Your task to perform on an android device: install app "Life360: Find Family & Friends" Image 0: 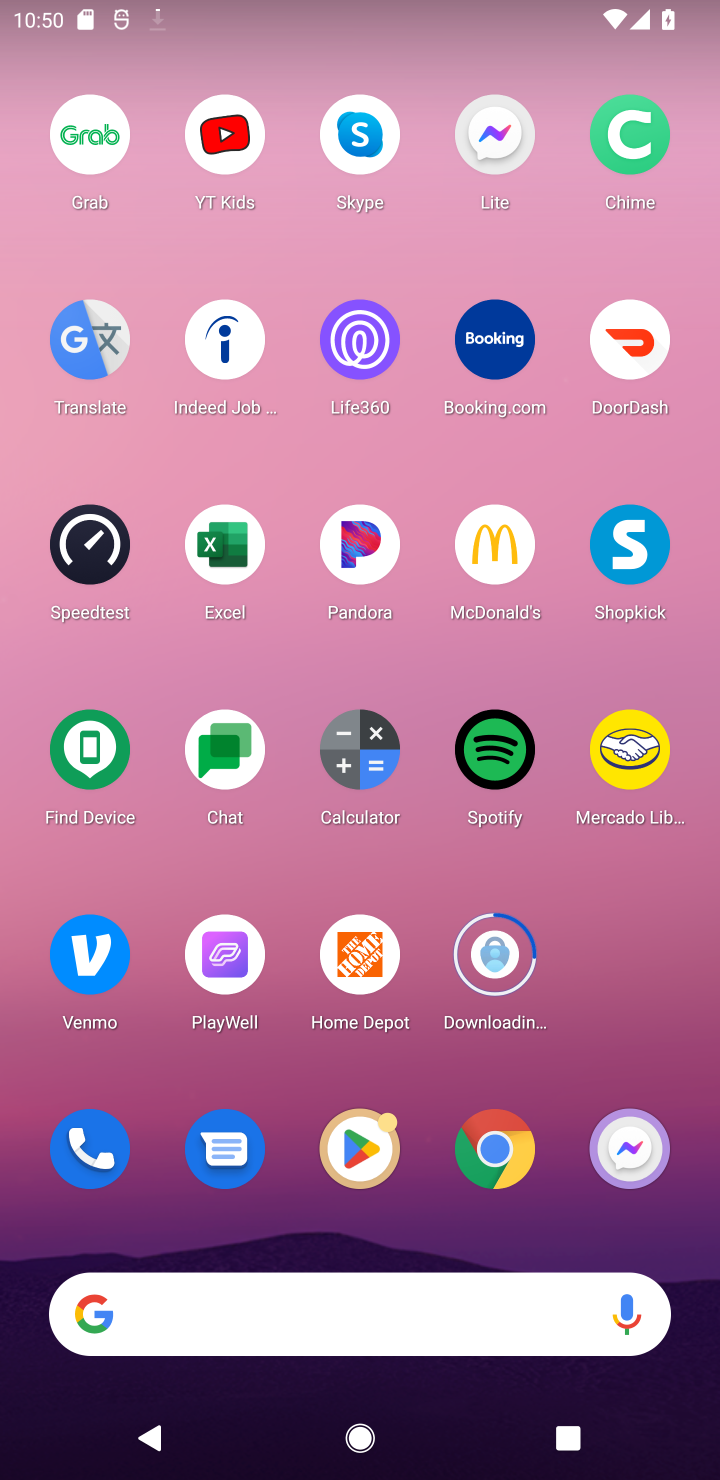
Step 0: click (344, 1138)
Your task to perform on an android device: install app "Life360: Find Family & Friends" Image 1: 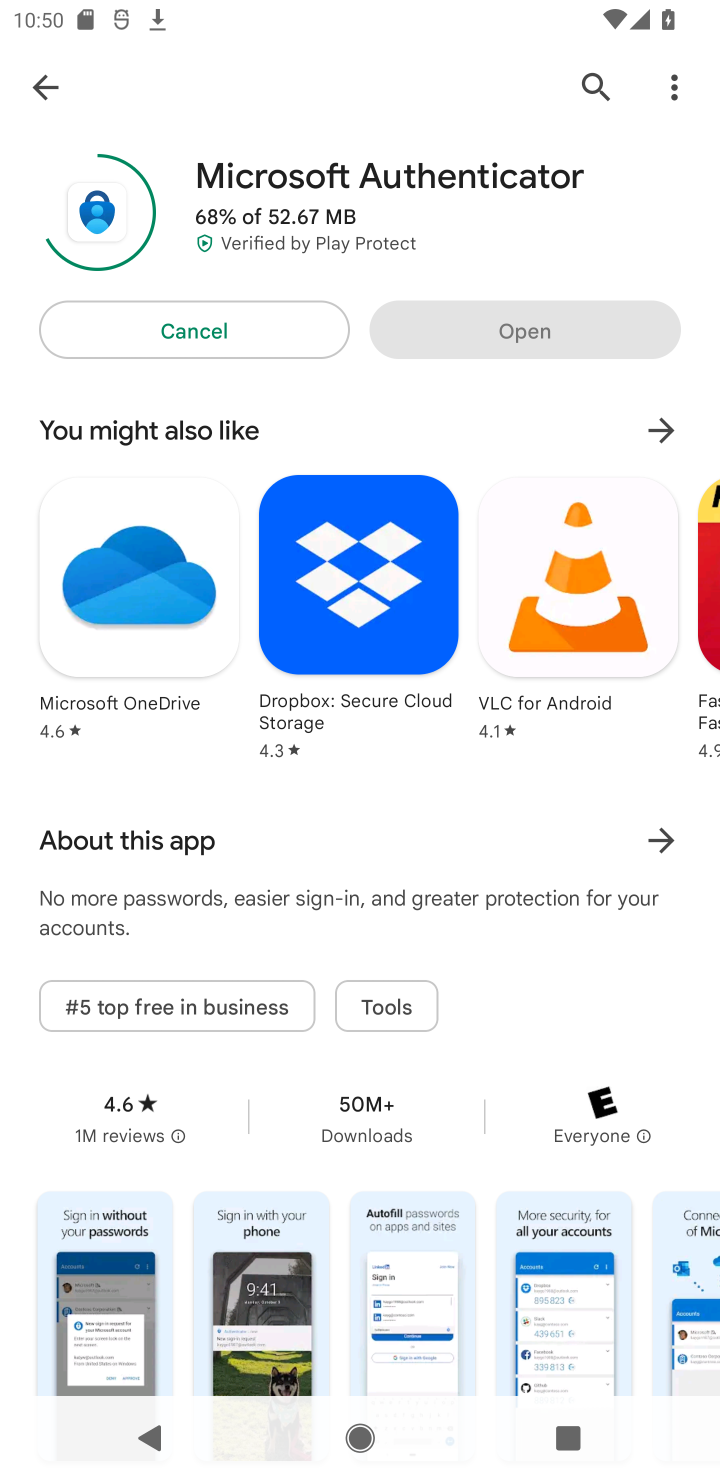
Step 1: click (617, 105)
Your task to perform on an android device: install app "Life360: Find Family & Friends" Image 2: 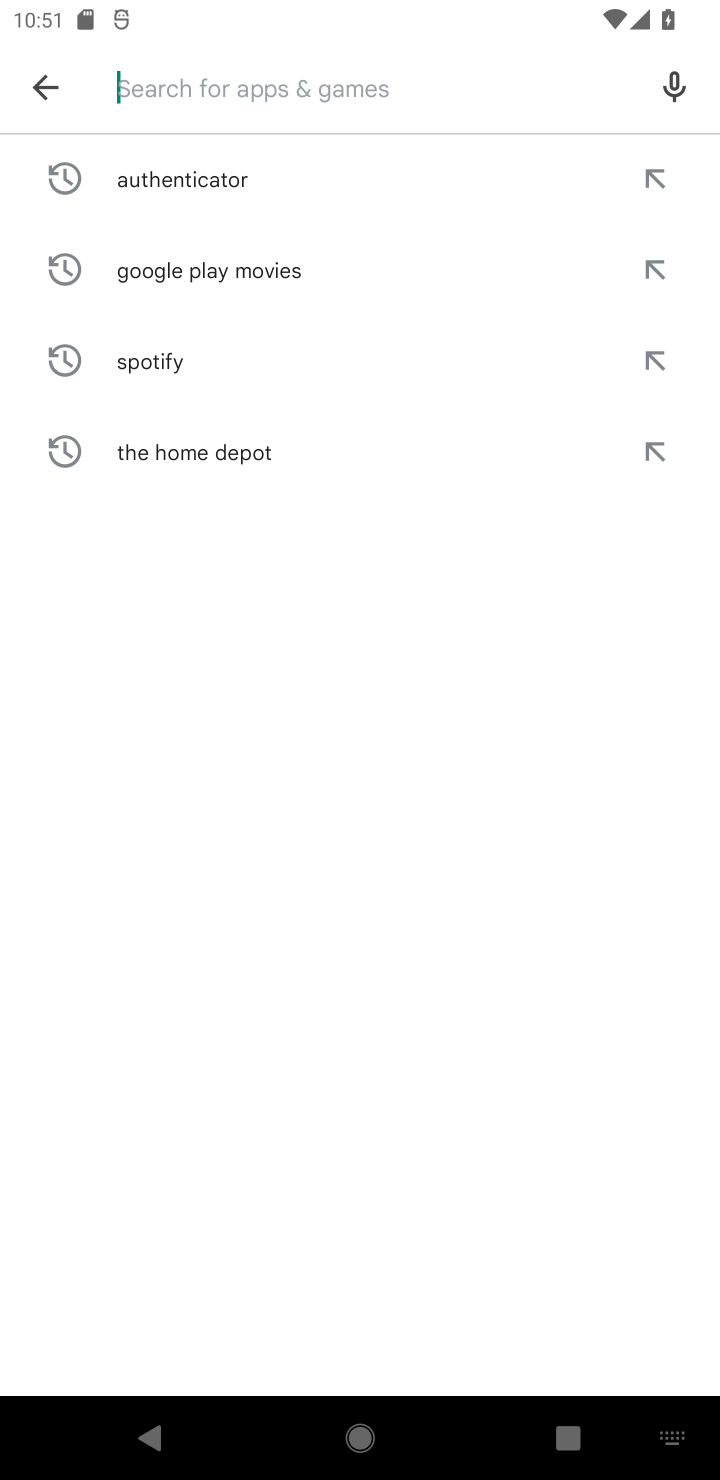
Step 2: type "life360"
Your task to perform on an android device: install app "Life360: Find Family & Friends" Image 3: 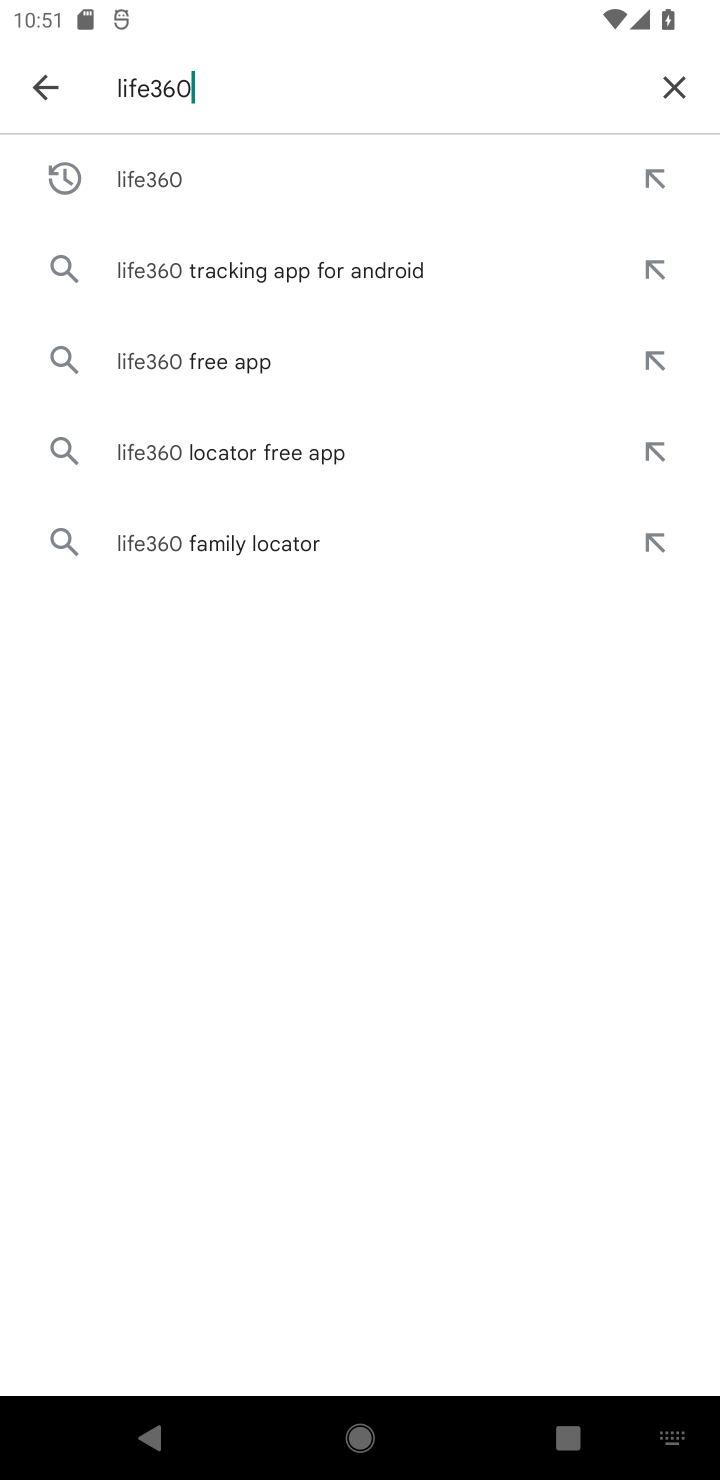
Step 3: click (238, 176)
Your task to perform on an android device: install app "Life360: Find Family & Friends" Image 4: 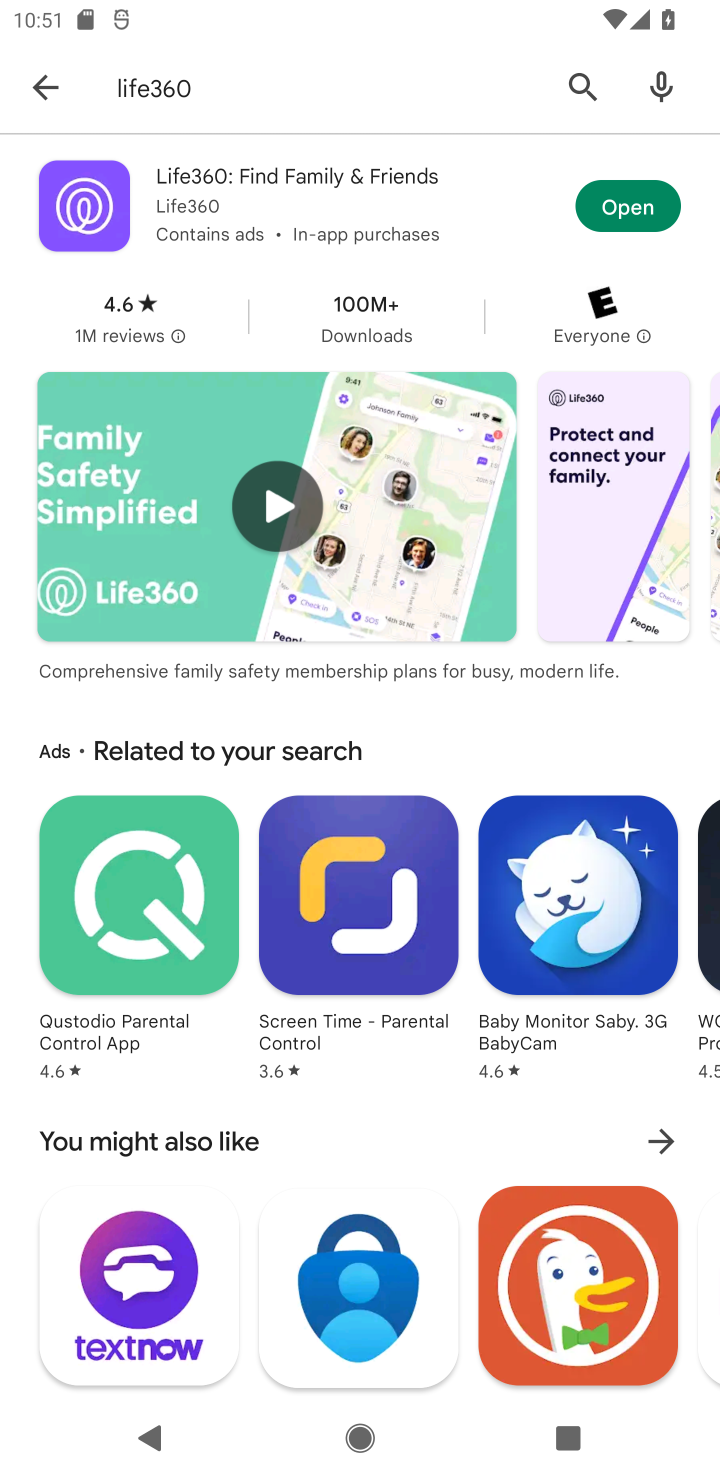
Step 4: click (612, 206)
Your task to perform on an android device: install app "Life360: Find Family & Friends" Image 5: 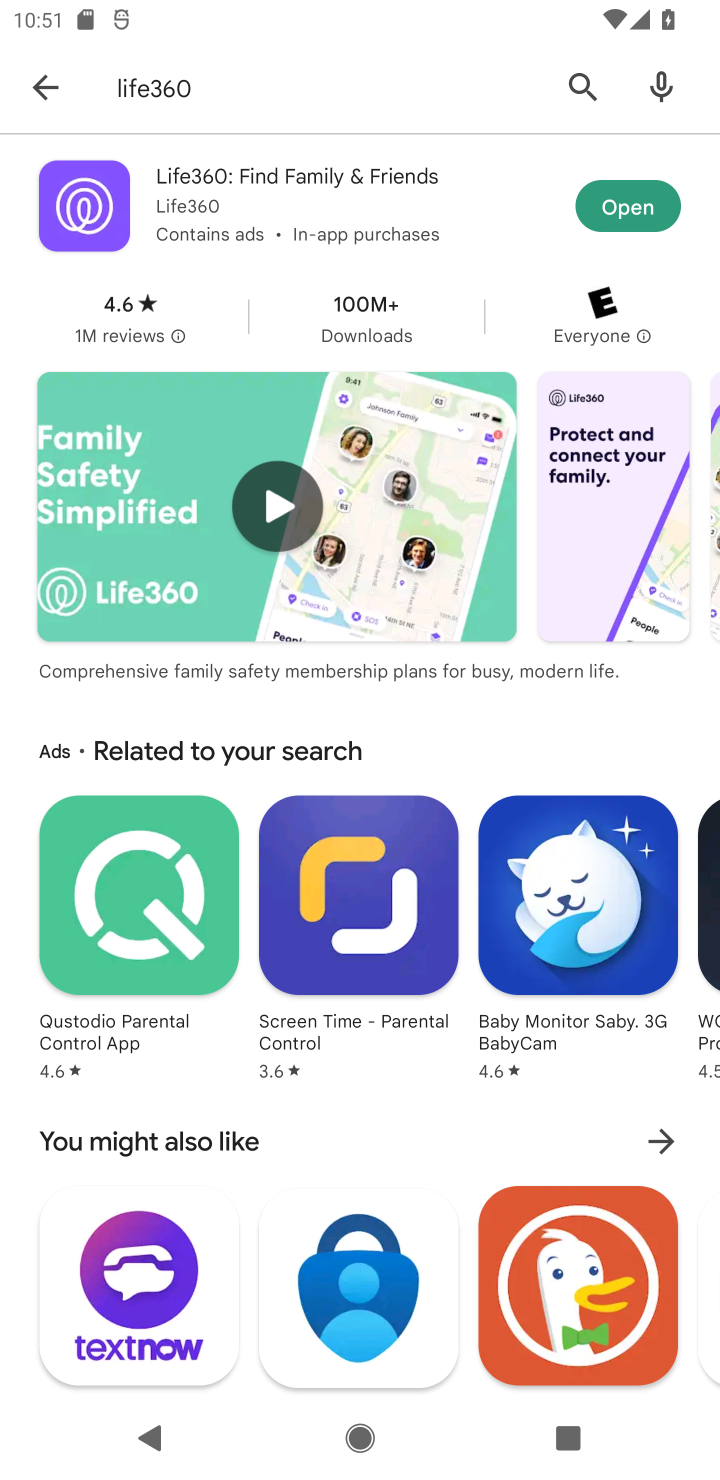
Step 5: task complete